Your task to perform on an android device: change text size in settings app Image 0: 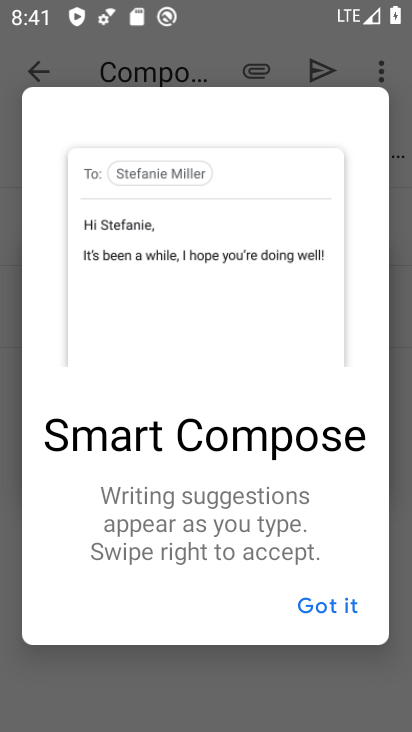
Step 0: press home button
Your task to perform on an android device: change text size in settings app Image 1: 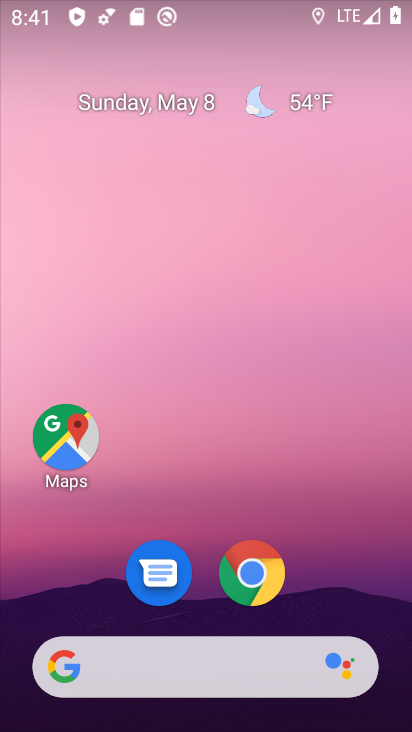
Step 1: drag from (226, 725) to (229, 214)
Your task to perform on an android device: change text size in settings app Image 2: 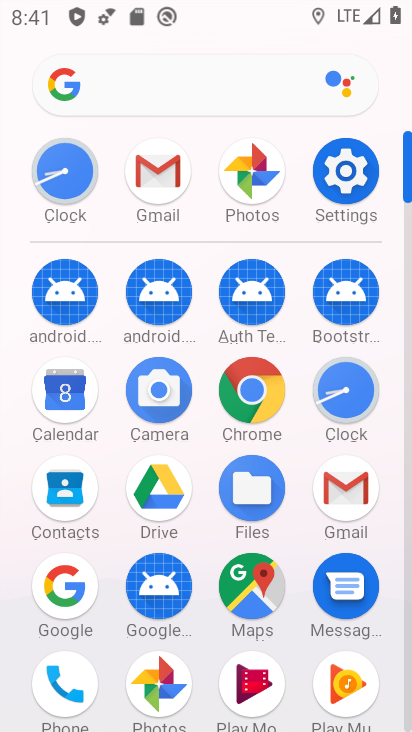
Step 2: click (347, 169)
Your task to perform on an android device: change text size in settings app Image 3: 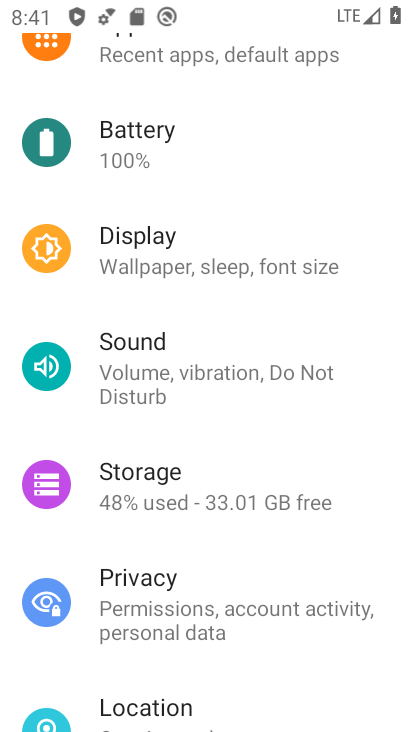
Step 3: click (189, 267)
Your task to perform on an android device: change text size in settings app Image 4: 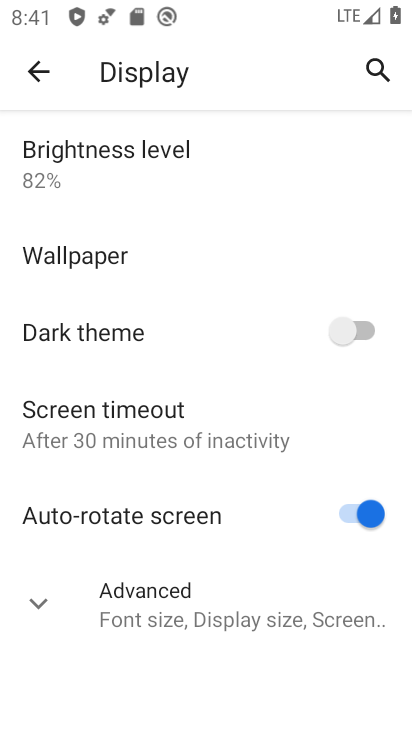
Step 4: click (155, 621)
Your task to perform on an android device: change text size in settings app Image 5: 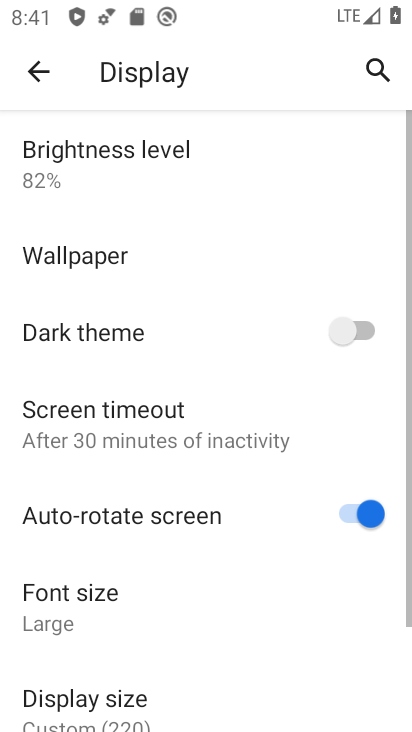
Step 5: drag from (158, 642) to (143, 385)
Your task to perform on an android device: change text size in settings app Image 6: 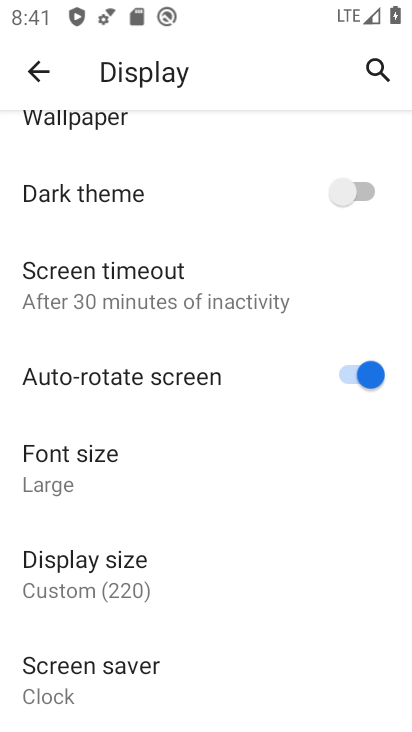
Step 6: click (81, 456)
Your task to perform on an android device: change text size in settings app Image 7: 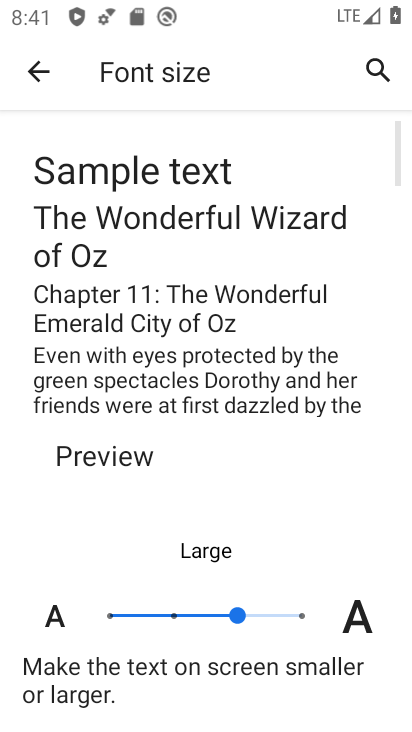
Step 7: click (174, 617)
Your task to perform on an android device: change text size in settings app Image 8: 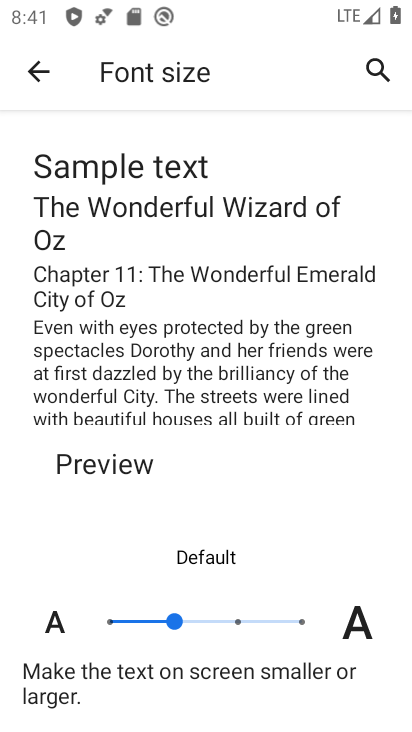
Step 8: task complete